Your task to perform on an android device: change the clock style Image 0: 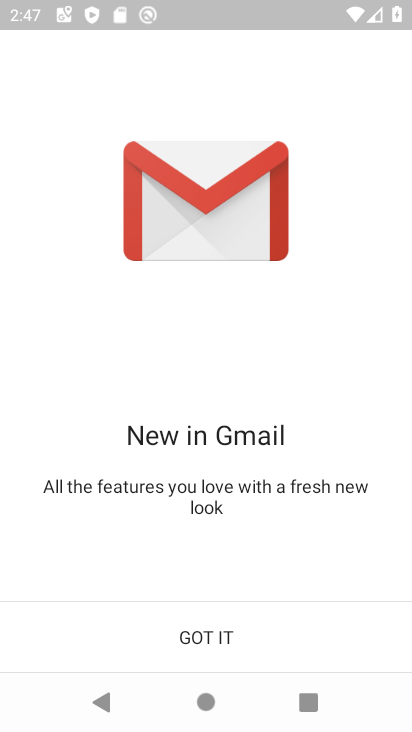
Step 0: click (235, 643)
Your task to perform on an android device: change the clock style Image 1: 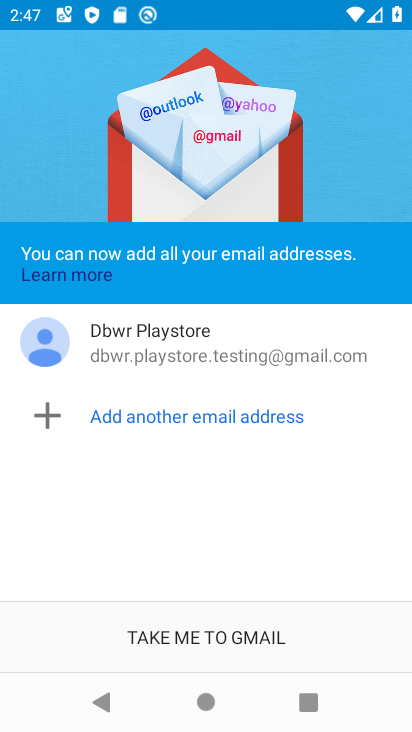
Step 1: click (168, 641)
Your task to perform on an android device: change the clock style Image 2: 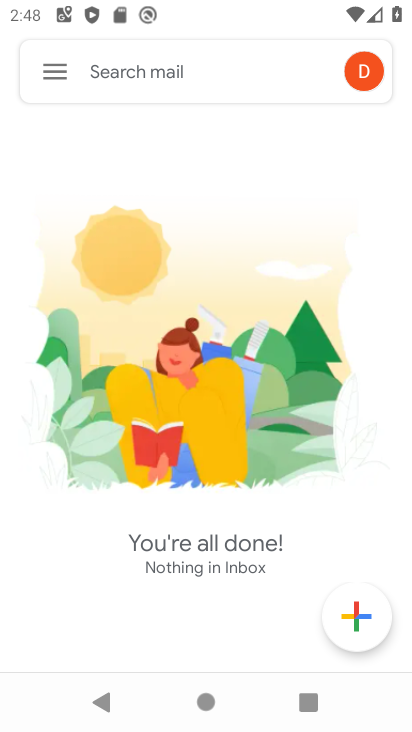
Step 2: press back button
Your task to perform on an android device: change the clock style Image 3: 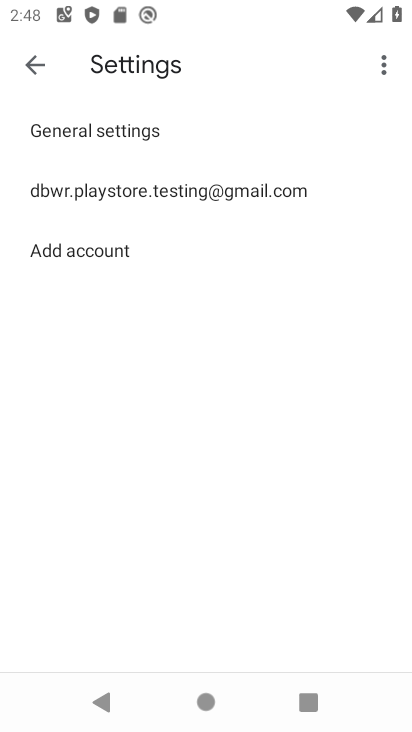
Step 3: press back button
Your task to perform on an android device: change the clock style Image 4: 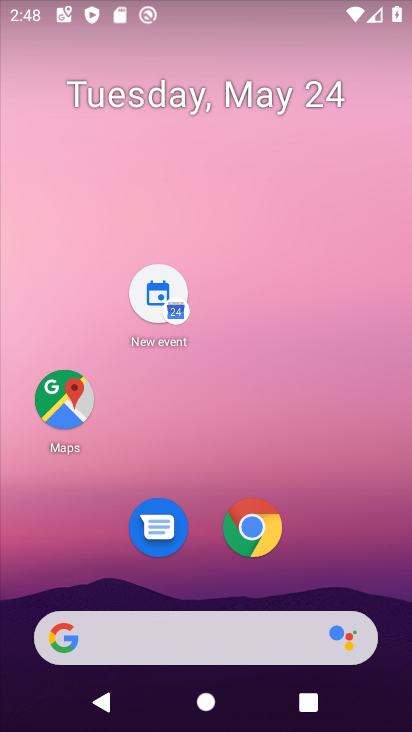
Step 4: press home button
Your task to perform on an android device: change the clock style Image 5: 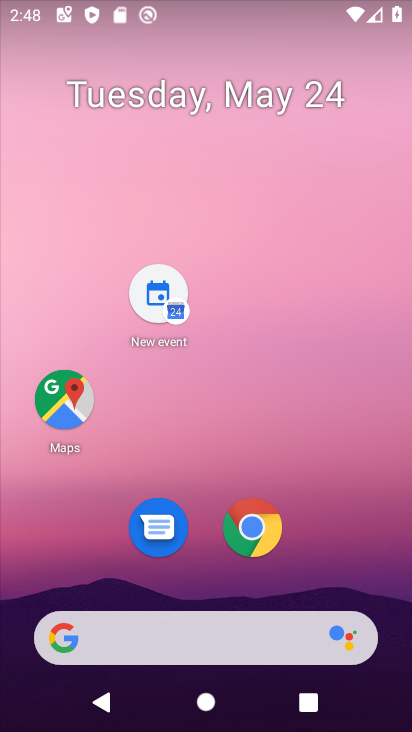
Step 5: drag from (289, 658) to (271, 301)
Your task to perform on an android device: change the clock style Image 6: 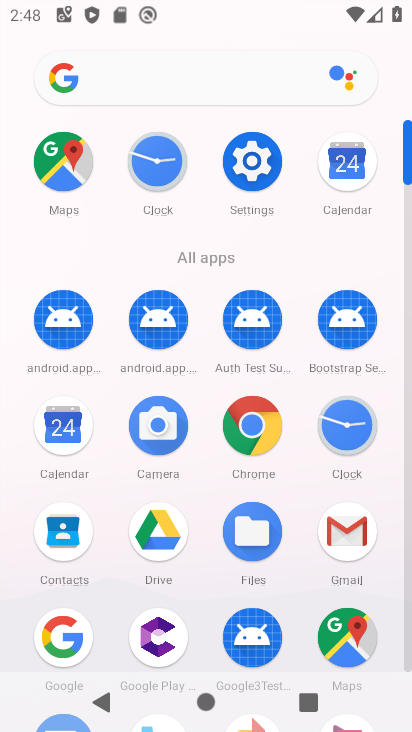
Step 6: drag from (255, 645) to (267, 398)
Your task to perform on an android device: change the clock style Image 7: 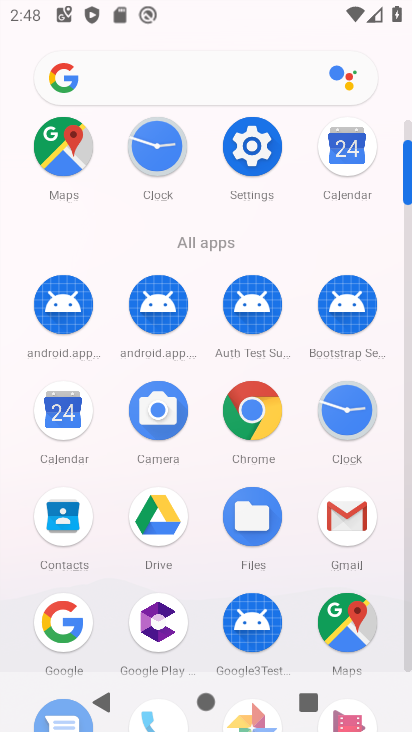
Step 7: click (351, 416)
Your task to perform on an android device: change the clock style Image 8: 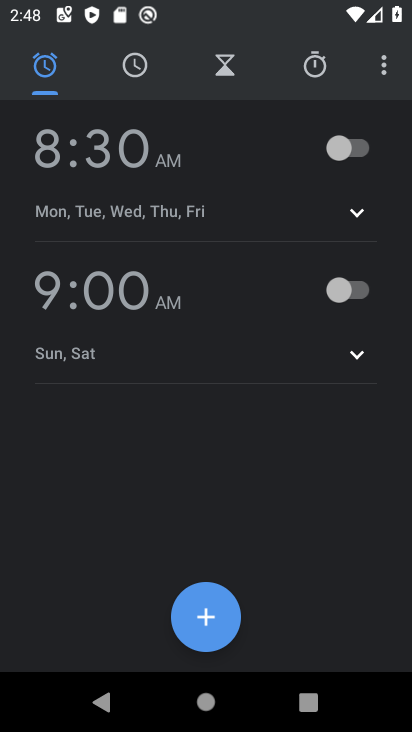
Step 8: click (379, 72)
Your task to perform on an android device: change the clock style Image 9: 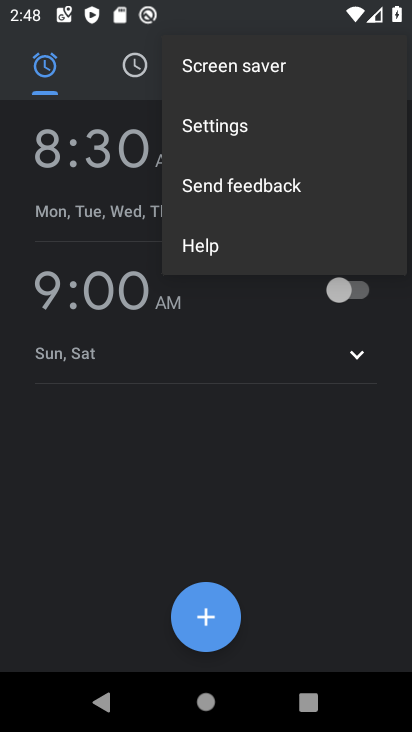
Step 9: click (218, 130)
Your task to perform on an android device: change the clock style Image 10: 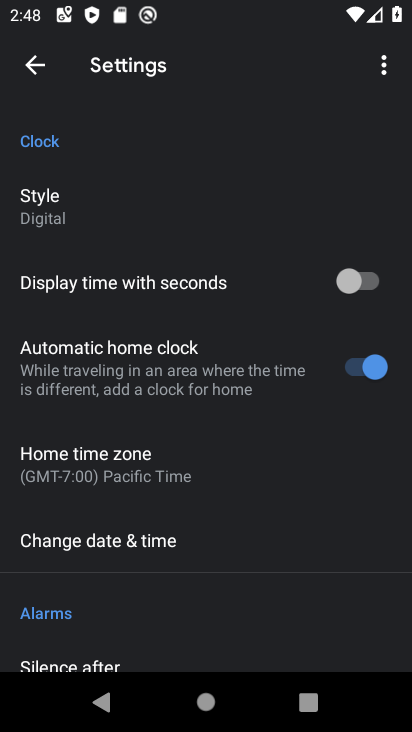
Step 10: click (123, 194)
Your task to perform on an android device: change the clock style Image 11: 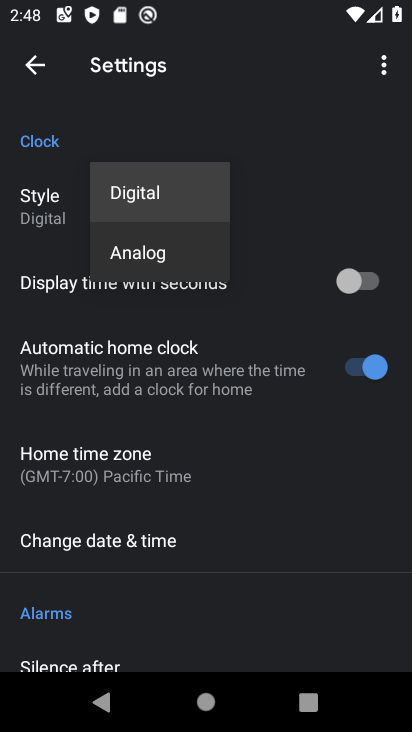
Step 11: click (148, 255)
Your task to perform on an android device: change the clock style Image 12: 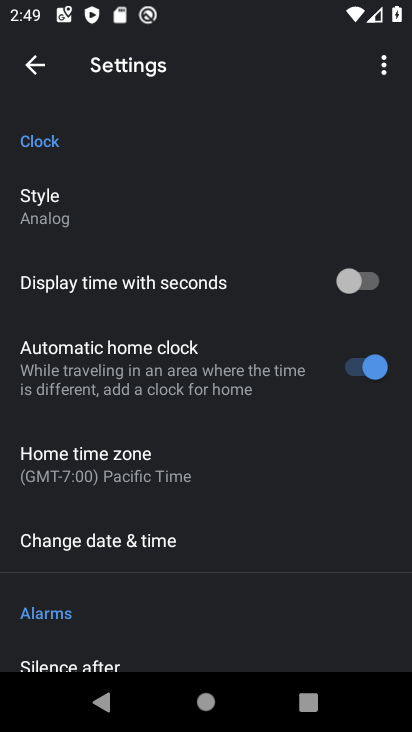
Step 12: click (106, 202)
Your task to perform on an android device: change the clock style Image 13: 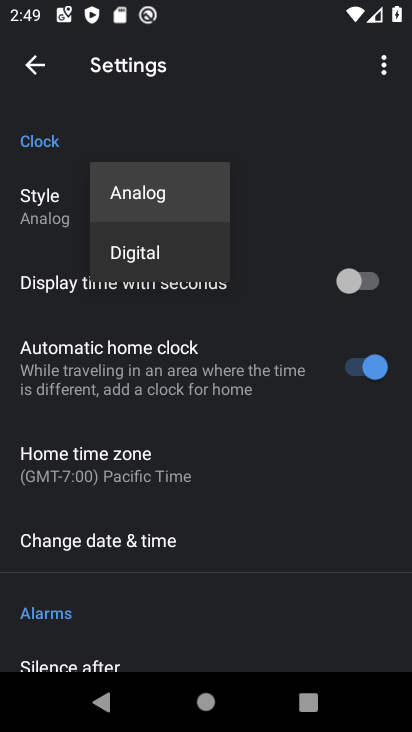
Step 13: click (160, 259)
Your task to perform on an android device: change the clock style Image 14: 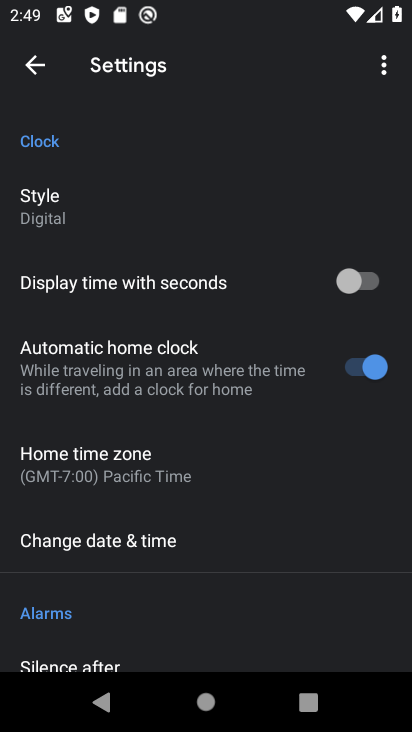
Step 14: task complete